Your task to perform on an android device: open chrome privacy settings Image 0: 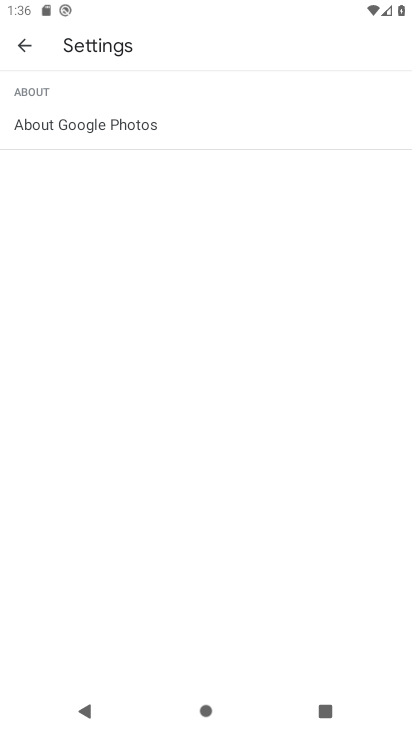
Step 0: press home button
Your task to perform on an android device: open chrome privacy settings Image 1: 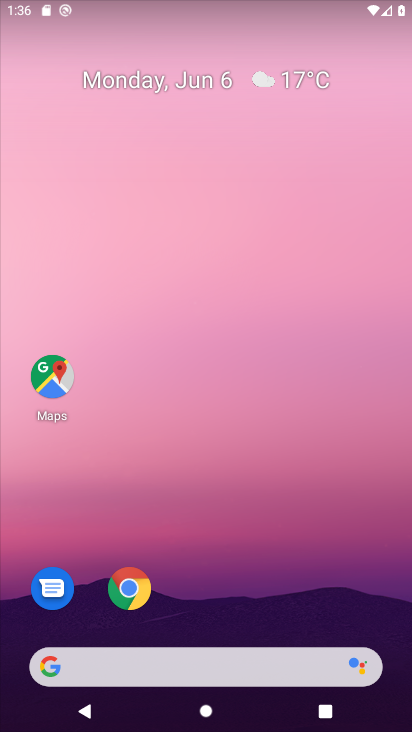
Step 1: drag from (190, 611) to (242, 210)
Your task to perform on an android device: open chrome privacy settings Image 2: 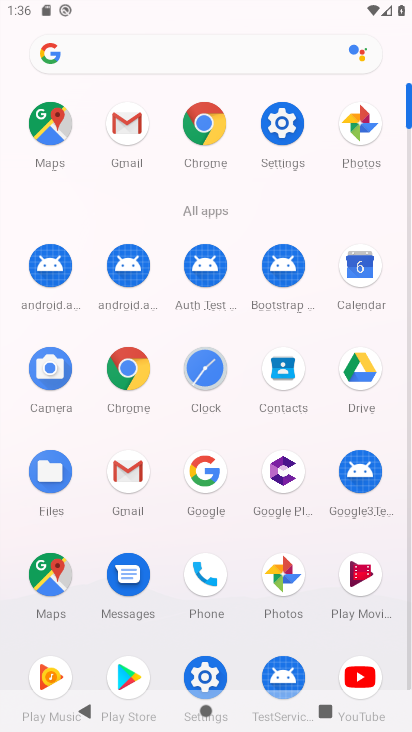
Step 2: click (213, 126)
Your task to perform on an android device: open chrome privacy settings Image 3: 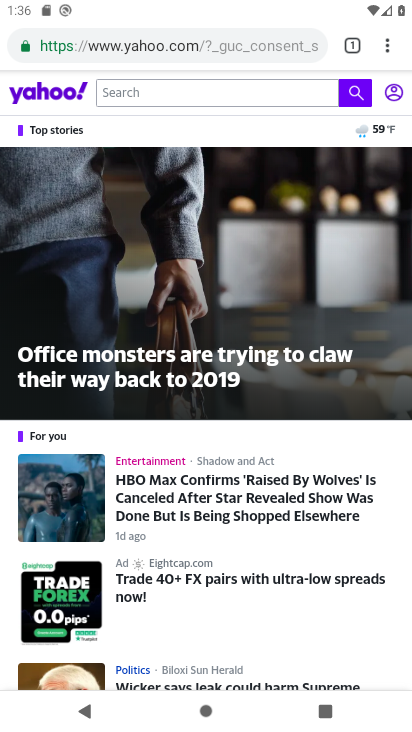
Step 3: click (390, 51)
Your task to perform on an android device: open chrome privacy settings Image 4: 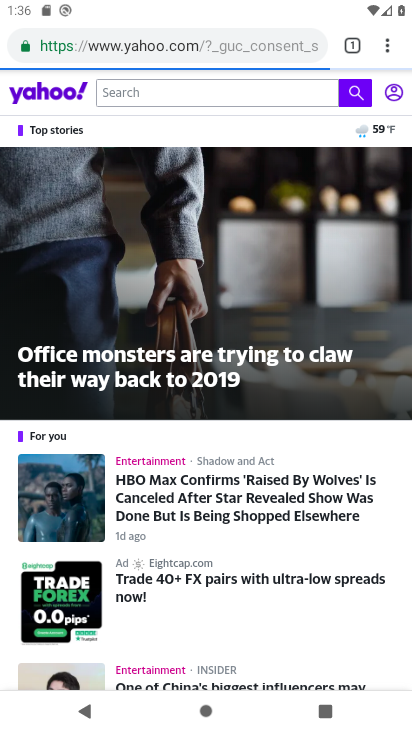
Step 4: click (390, 50)
Your task to perform on an android device: open chrome privacy settings Image 5: 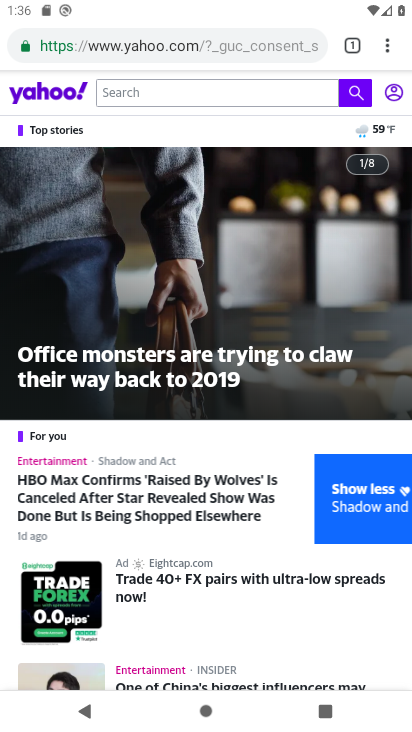
Step 5: click (386, 45)
Your task to perform on an android device: open chrome privacy settings Image 6: 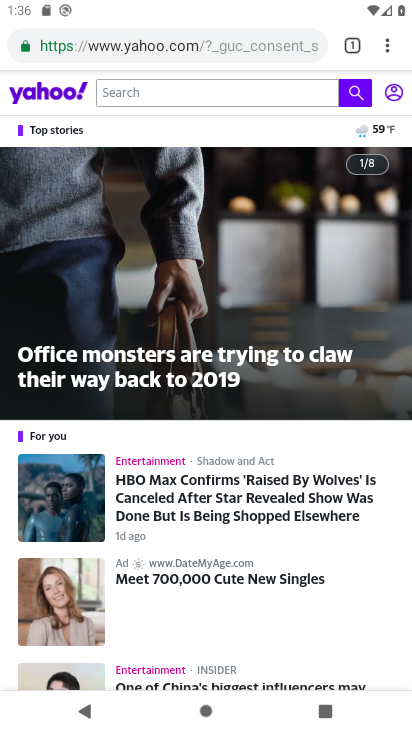
Step 6: click (387, 46)
Your task to perform on an android device: open chrome privacy settings Image 7: 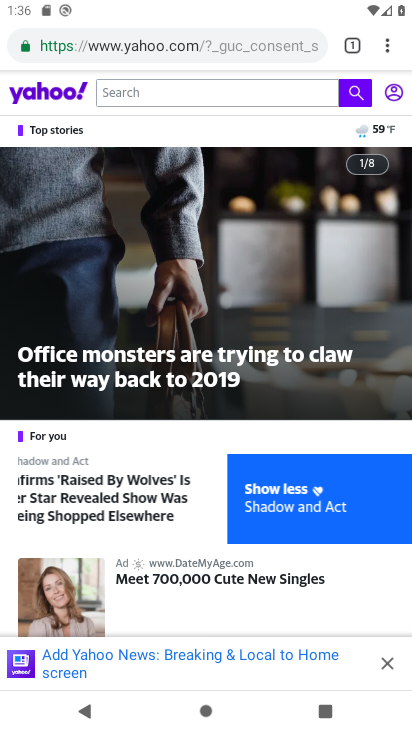
Step 7: click (388, 46)
Your task to perform on an android device: open chrome privacy settings Image 8: 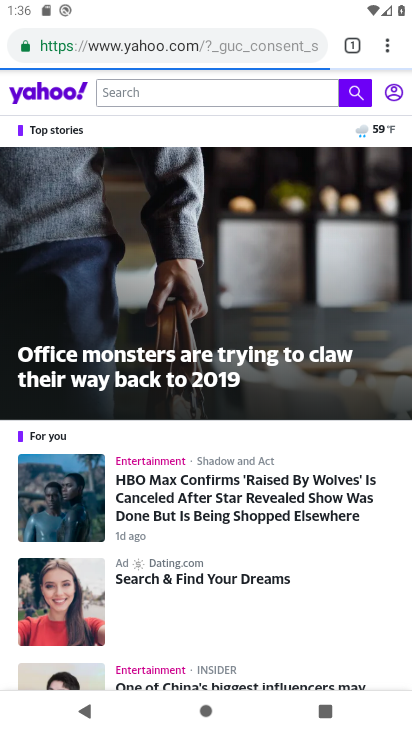
Step 8: click (390, 44)
Your task to perform on an android device: open chrome privacy settings Image 9: 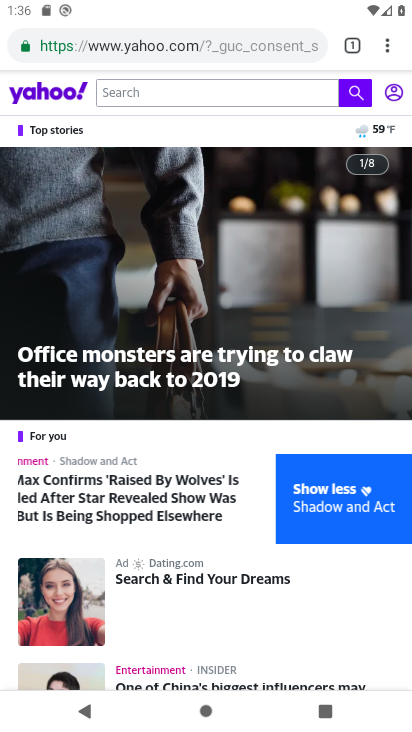
Step 9: click (390, 44)
Your task to perform on an android device: open chrome privacy settings Image 10: 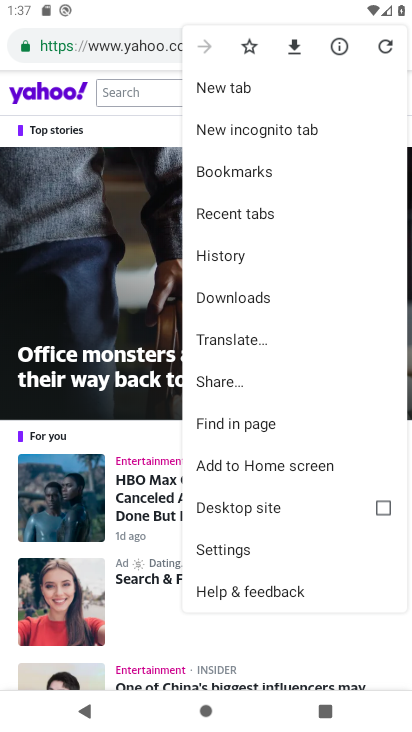
Step 10: click (223, 551)
Your task to perform on an android device: open chrome privacy settings Image 11: 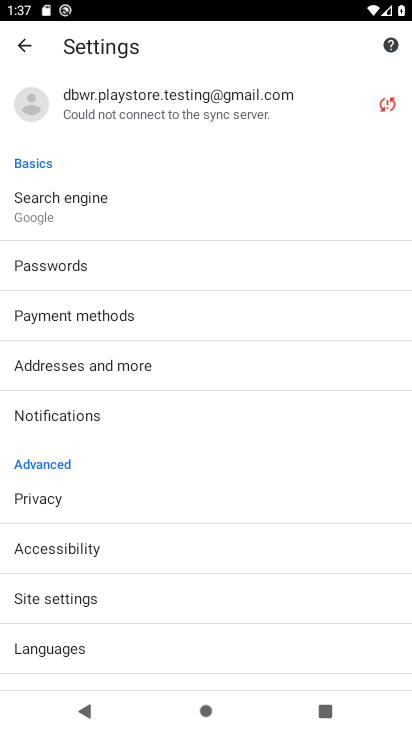
Step 11: click (63, 499)
Your task to perform on an android device: open chrome privacy settings Image 12: 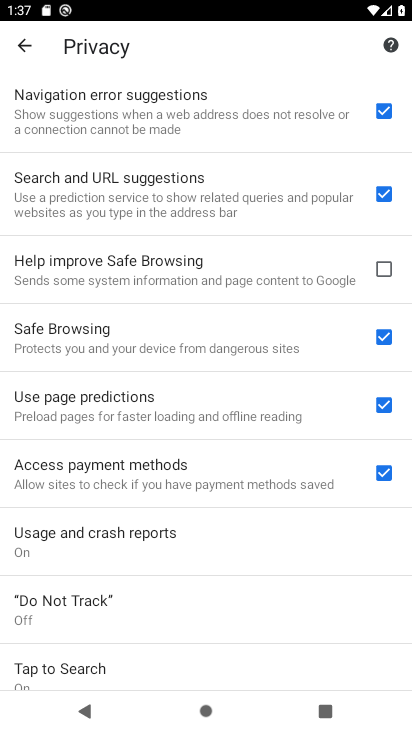
Step 12: task complete